Your task to perform on an android device: open app "VLC for Android" (install if not already installed) Image 0: 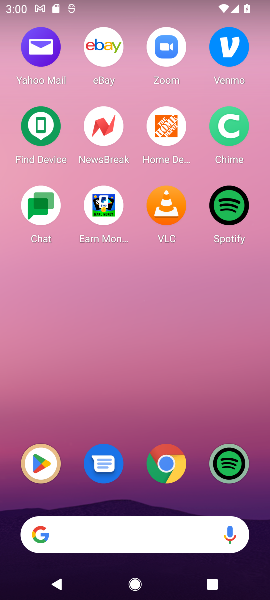
Step 0: click (43, 469)
Your task to perform on an android device: open app "VLC for Android" (install if not already installed) Image 1: 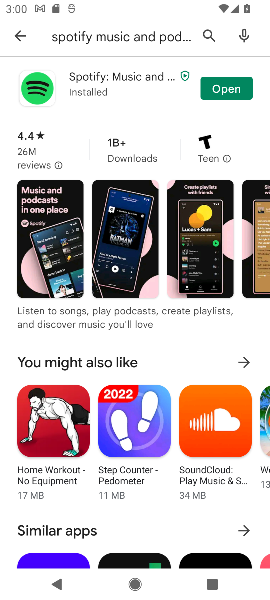
Step 1: click (204, 37)
Your task to perform on an android device: open app "VLC for Android" (install if not already installed) Image 2: 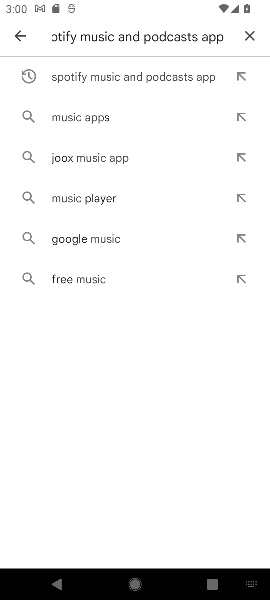
Step 2: click (249, 32)
Your task to perform on an android device: open app "VLC for Android" (install if not already installed) Image 3: 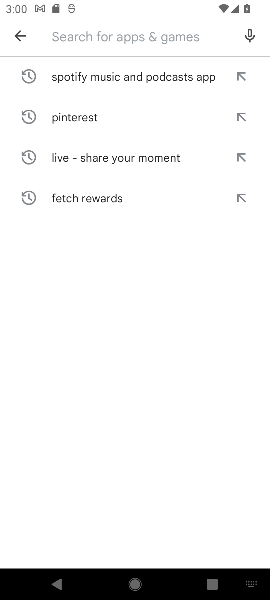
Step 3: type "VLC for Android"
Your task to perform on an android device: open app "VLC for Android" (install if not already installed) Image 4: 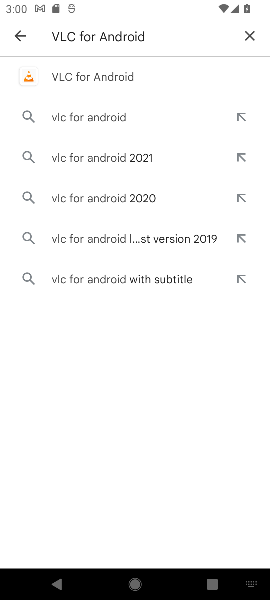
Step 4: click (119, 76)
Your task to perform on an android device: open app "VLC for Android" (install if not already installed) Image 5: 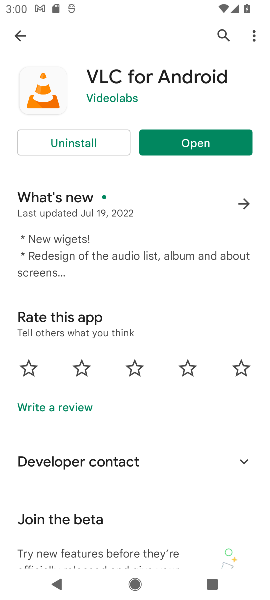
Step 5: click (183, 138)
Your task to perform on an android device: open app "VLC for Android" (install if not already installed) Image 6: 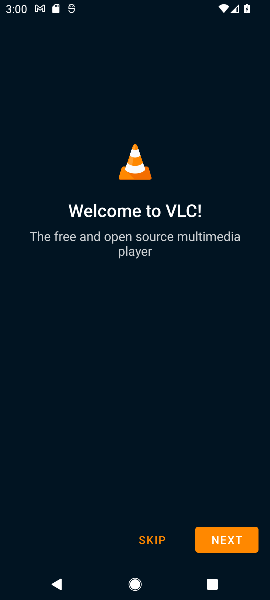
Step 6: task complete